Your task to perform on an android device: turn off location Image 0: 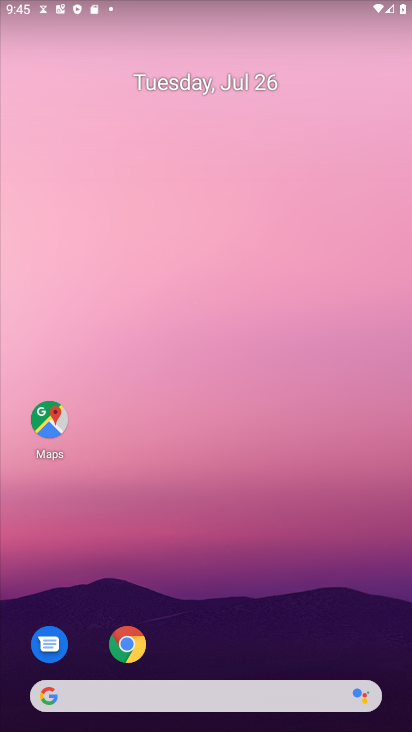
Step 0: drag from (236, 640) to (206, 14)
Your task to perform on an android device: turn off location Image 1: 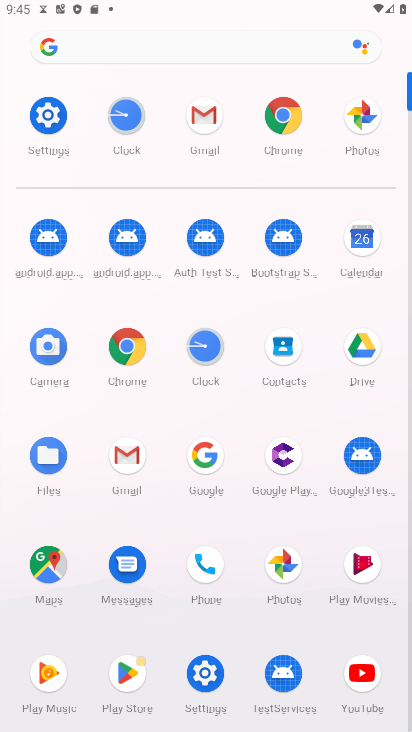
Step 1: click (208, 671)
Your task to perform on an android device: turn off location Image 2: 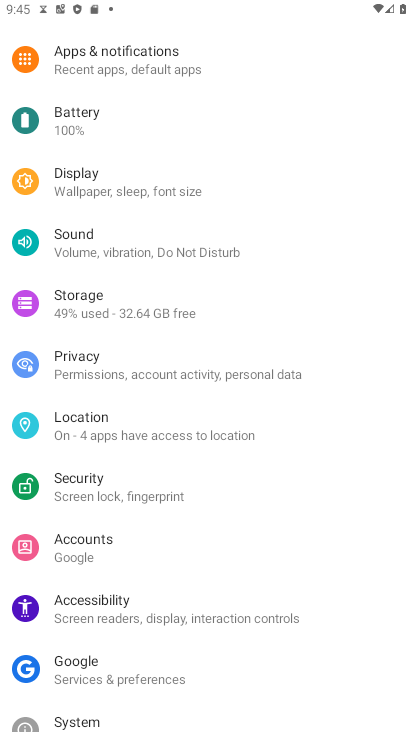
Step 2: click (145, 428)
Your task to perform on an android device: turn off location Image 3: 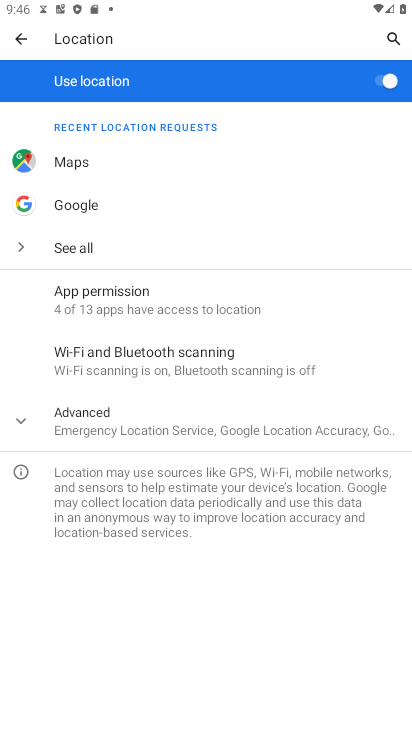
Step 3: click (352, 80)
Your task to perform on an android device: turn off location Image 4: 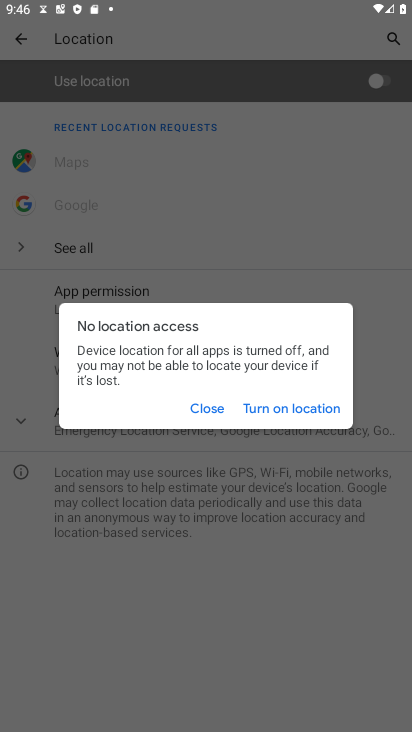
Step 4: click (219, 408)
Your task to perform on an android device: turn off location Image 5: 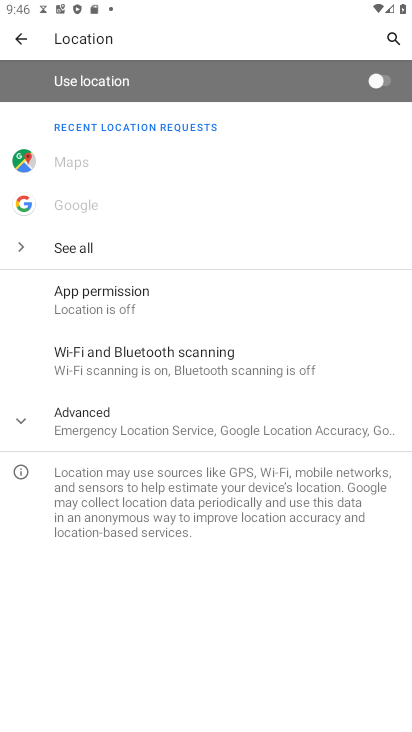
Step 5: task complete